Your task to perform on an android device: change alarm snooze length Image 0: 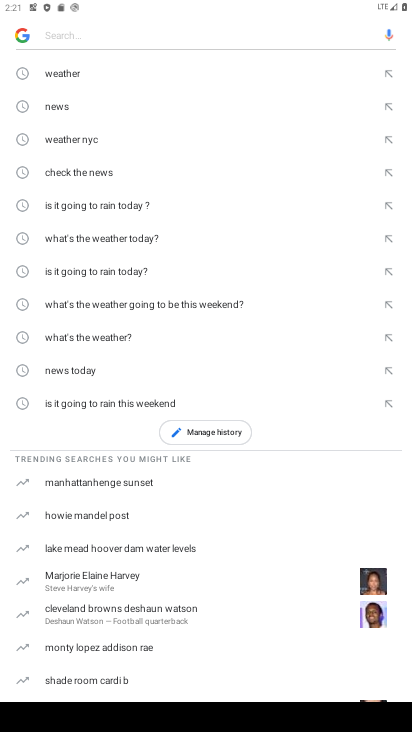
Step 0: press home button
Your task to perform on an android device: change alarm snooze length Image 1: 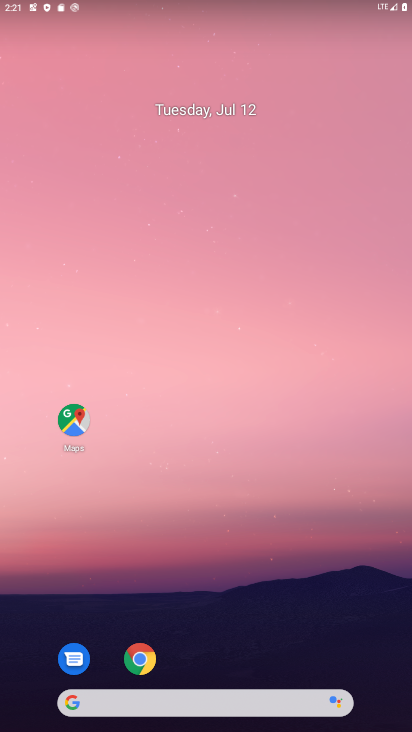
Step 1: drag from (223, 726) to (198, 118)
Your task to perform on an android device: change alarm snooze length Image 2: 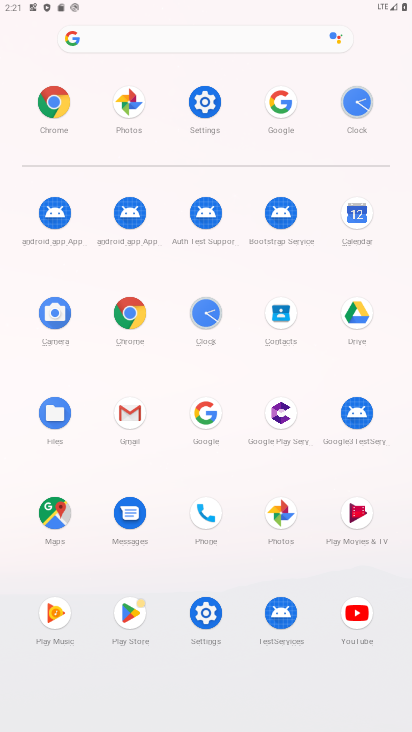
Step 2: click (213, 321)
Your task to perform on an android device: change alarm snooze length Image 3: 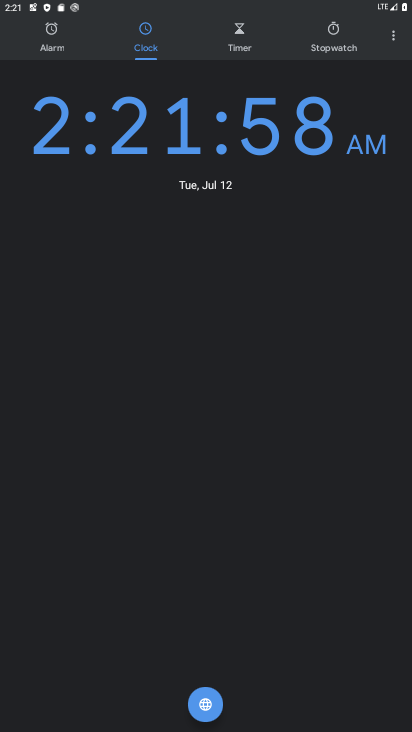
Step 3: click (394, 43)
Your task to perform on an android device: change alarm snooze length Image 4: 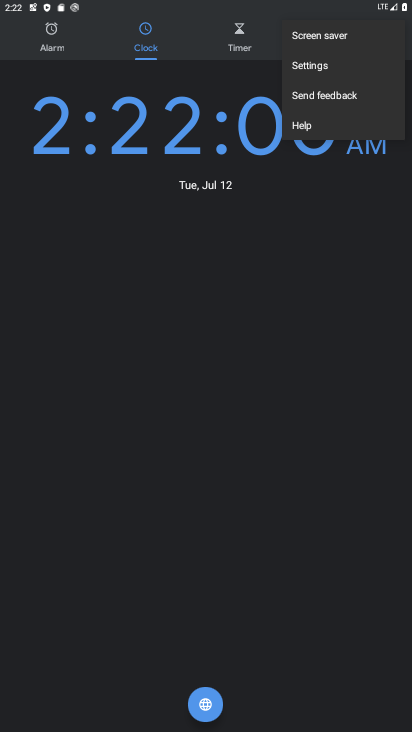
Step 4: click (313, 64)
Your task to perform on an android device: change alarm snooze length Image 5: 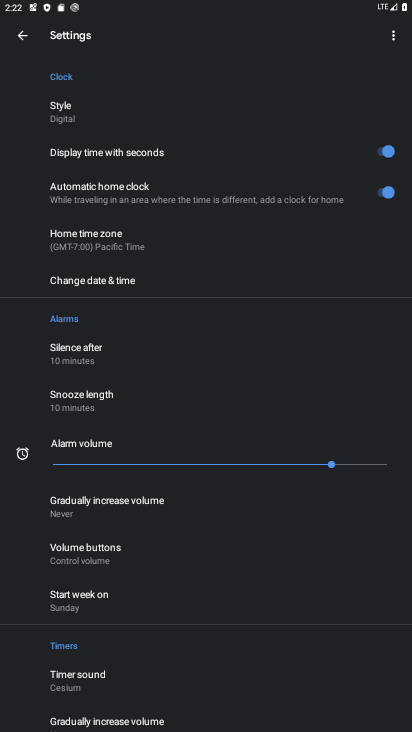
Step 5: click (90, 398)
Your task to perform on an android device: change alarm snooze length Image 6: 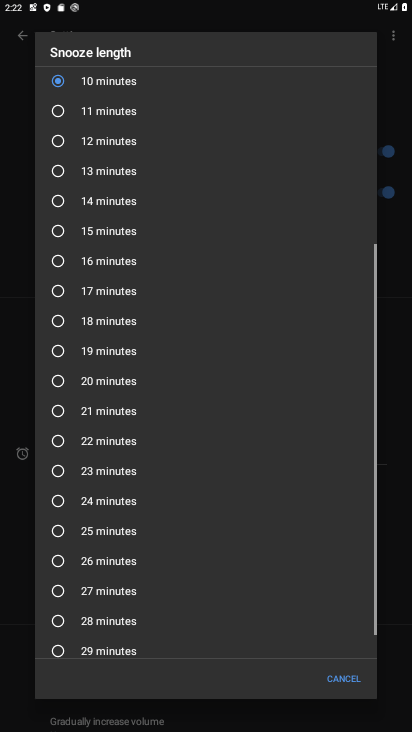
Step 6: click (60, 501)
Your task to perform on an android device: change alarm snooze length Image 7: 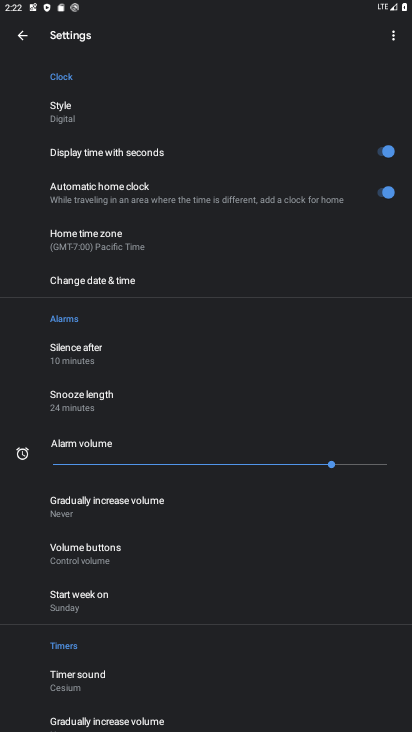
Step 7: task complete